Your task to perform on an android device: Open notification settings Image 0: 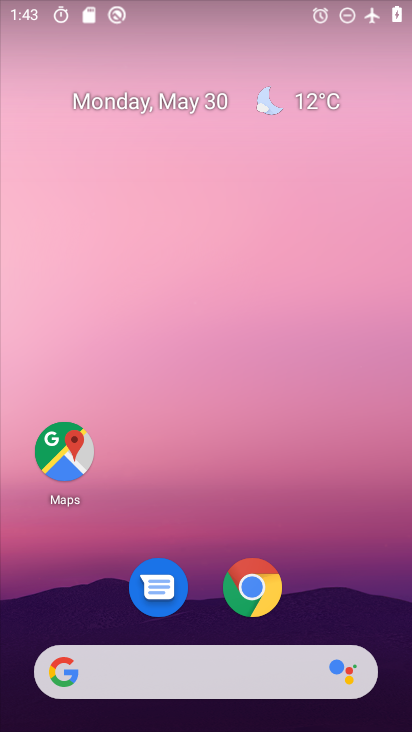
Step 0: drag from (340, 563) to (278, 15)
Your task to perform on an android device: Open notification settings Image 1: 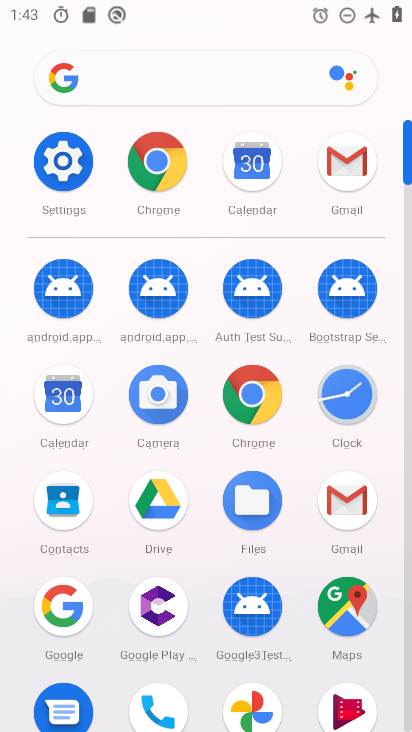
Step 1: click (71, 150)
Your task to perform on an android device: Open notification settings Image 2: 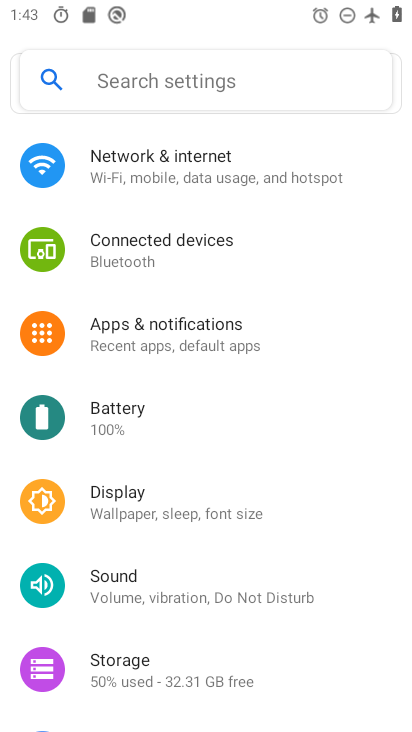
Step 2: click (218, 328)
Your task to perform on an android device: Open notification settings Image 3: 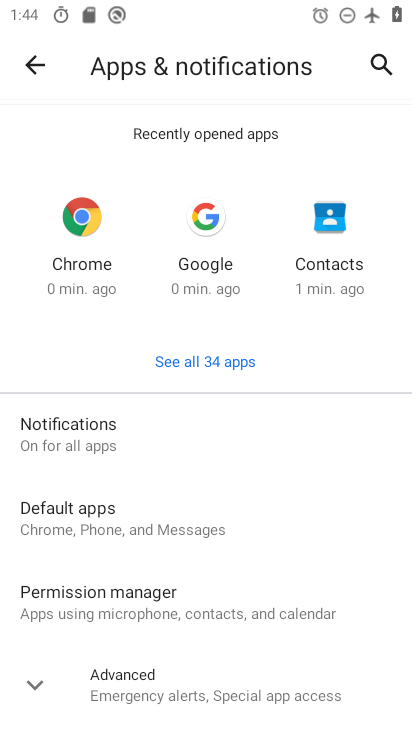
Step 3: drag from (250, 531) to (290, 243)
Your task to perform on an android device: Open notification settings Image 4: 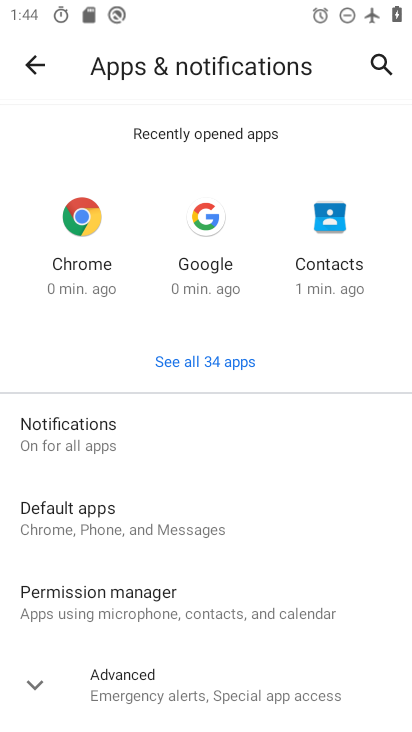
Step 4: click (106, 428)
Your task to perform on an android device: Open notification settings Image 5: 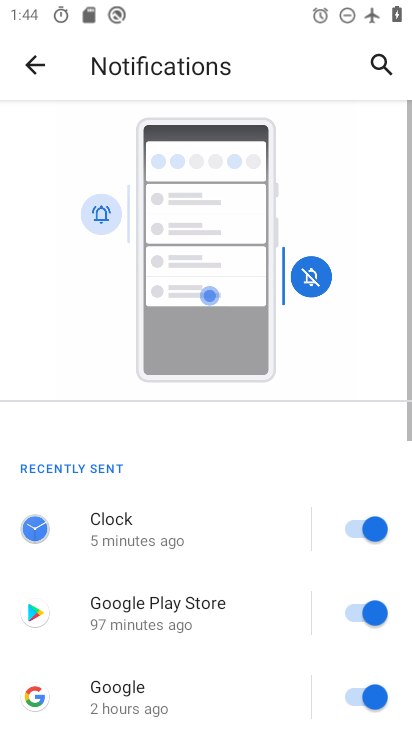
Step 5: task complete